Your task to perform on an android device: Go to Amazon Image 0: 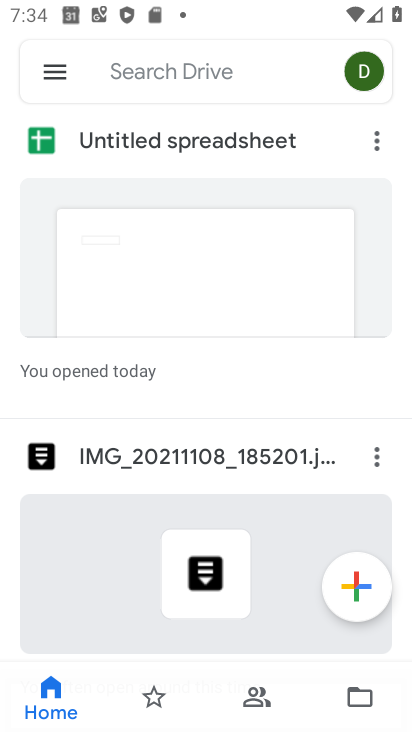
Step 0: press home button
Your task to perform on an android device: Go to Amazon Image 1: 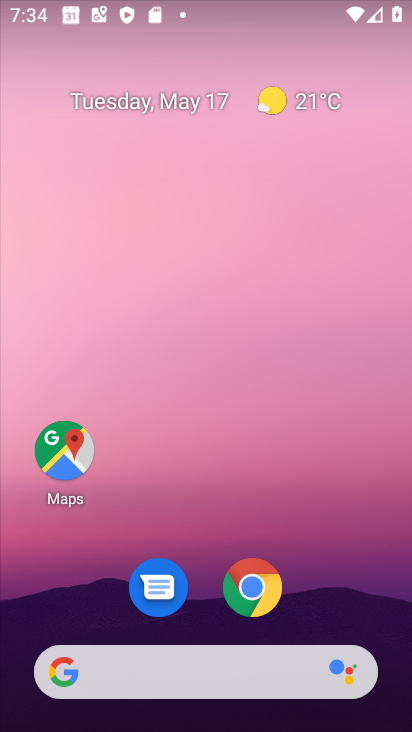
Step 1: drag from (346, 601) to (347, 152)
Your task to perform on an android device: Go to Amazon Image 2: 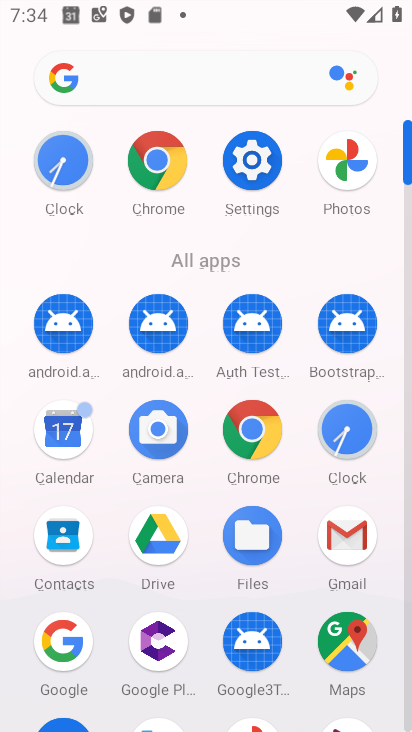
Step 2: click (267, 438)
Your task to perform on an android device: Go to Amazon Image 3: 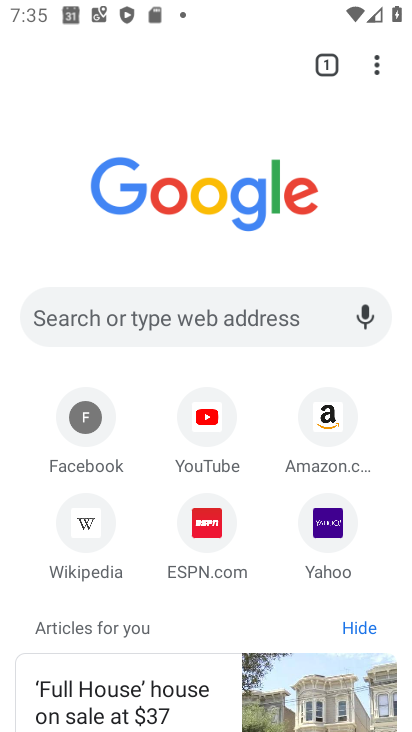
Step 3: click (323, 431)
Your task to perform on an android device: Go to Amazon Image 4: 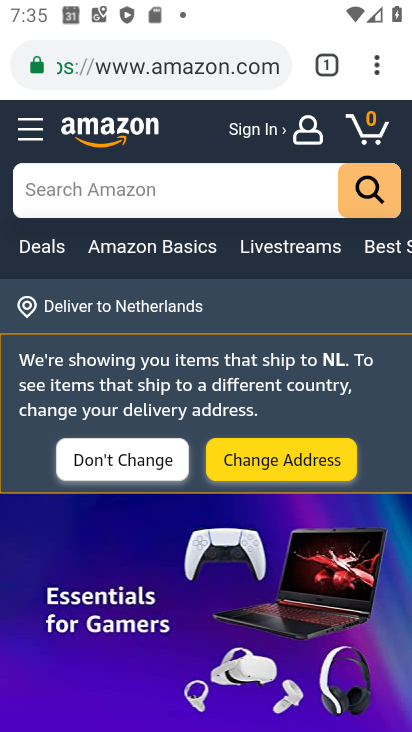
Step 4: task complete